Your task to perform on an android device: uninstall "Pluto TV - Live TV and Movies" Image 0: 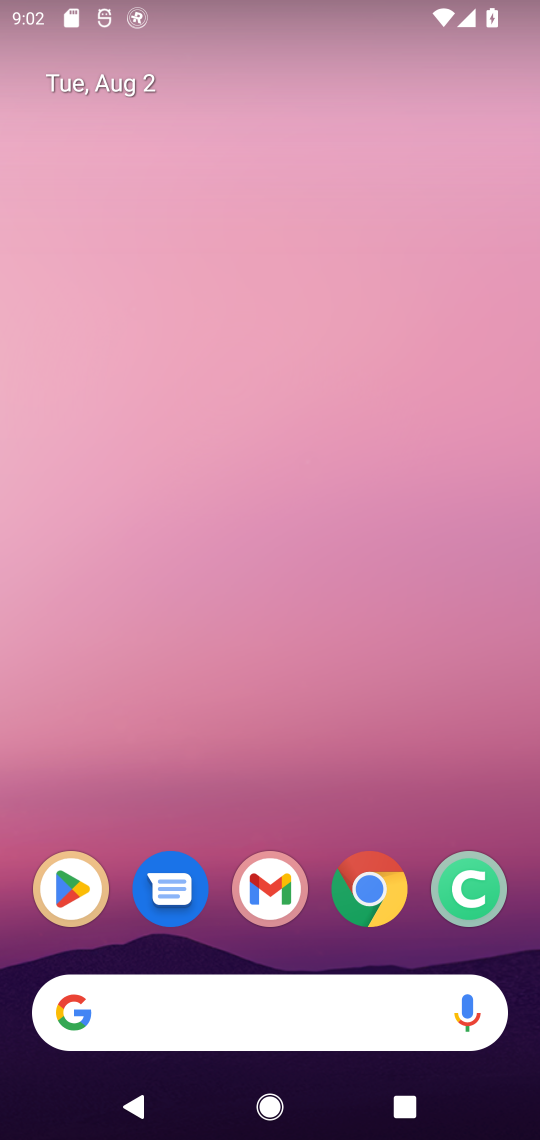
Step 0: press home button
Your task to perform on an android device: uninstall "Pluto TV - Live TV and Movies" Image 1: 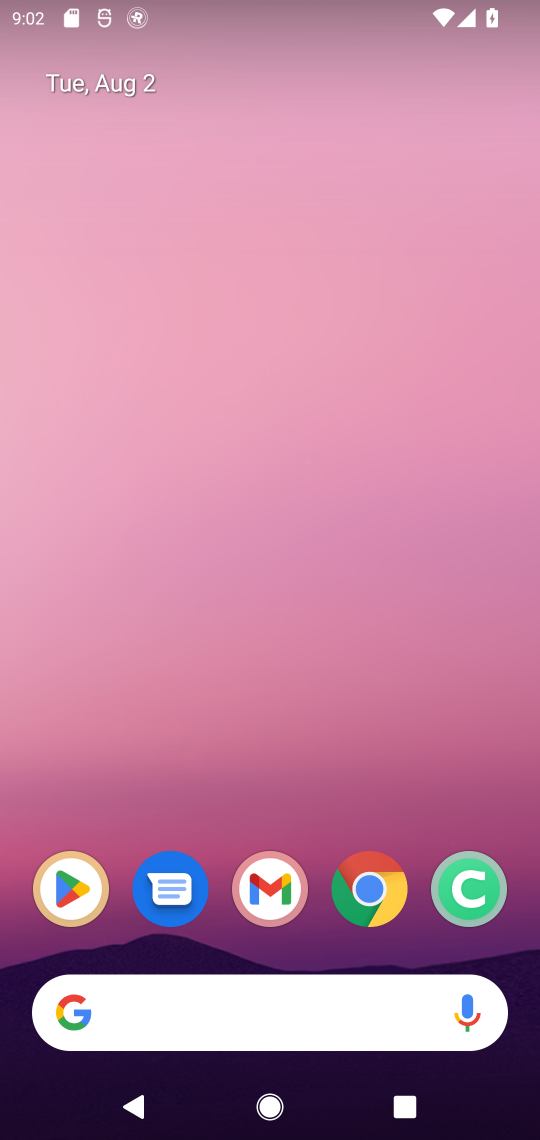
Step 1: click (76, 890)
Your task to perform on an android device: uninstall "Pluto TV - Live TV and Movies" Image 2: 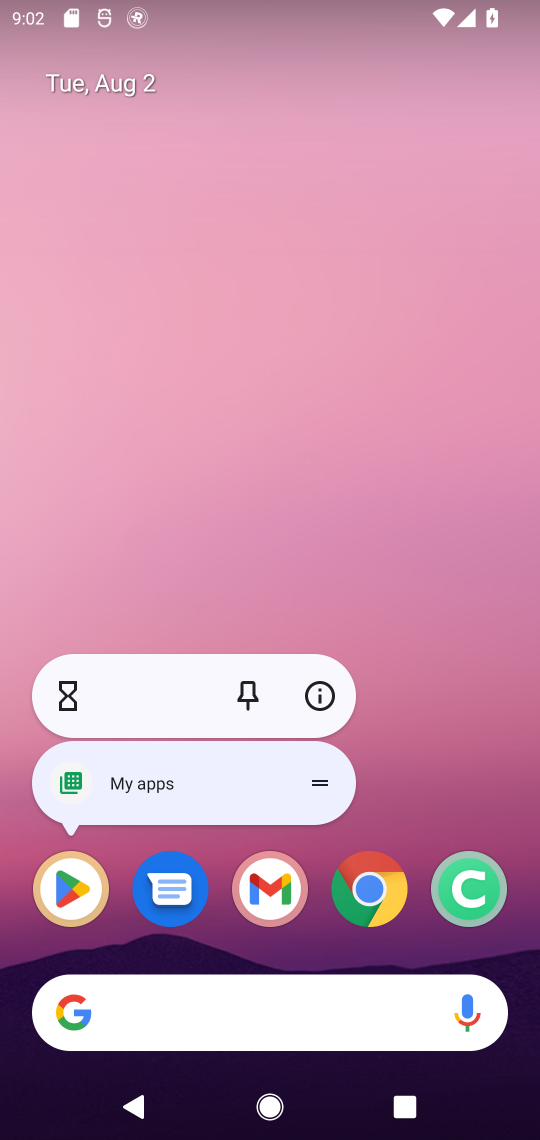
Step 2: click (72, 880)
Your task to perform on an android device: uninstall "Pluto TV - Live TV and Movies" Image 3: 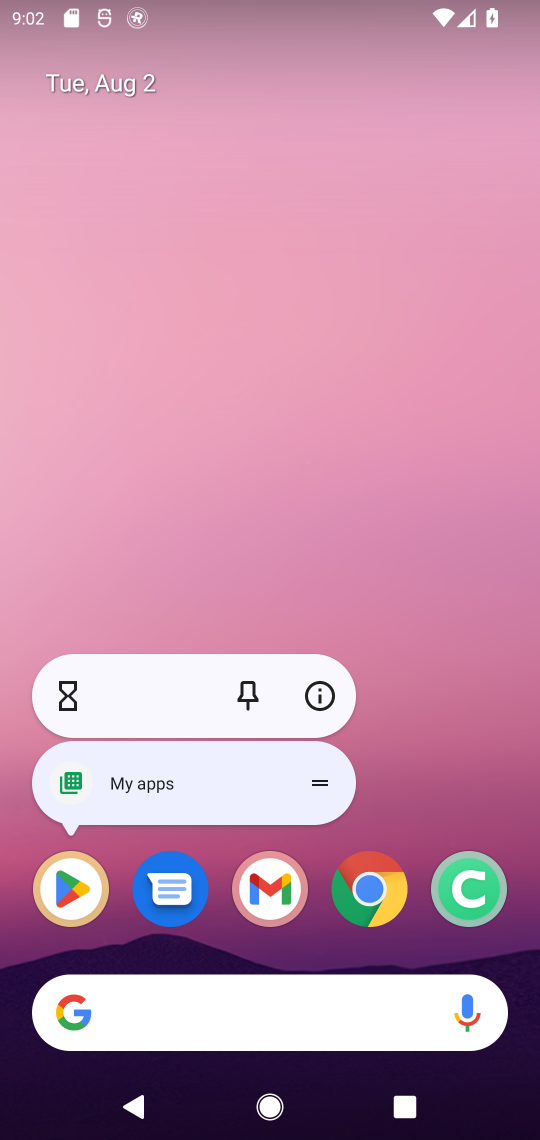
Step 3: click (72, 884)
Your task to perform on an android device: uninstall "Pluto TV - Live TV and Movies" Image 4: 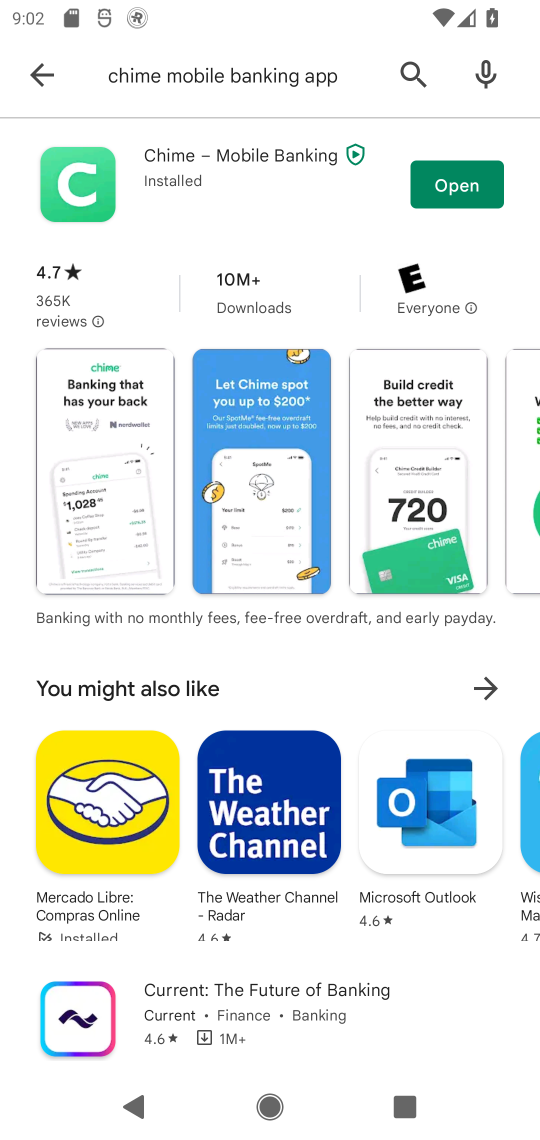
Step 4: click (402, 62)
Your task to perform on an android device: uninstall "Pluto TV - Live TV and Movies" Image 5: 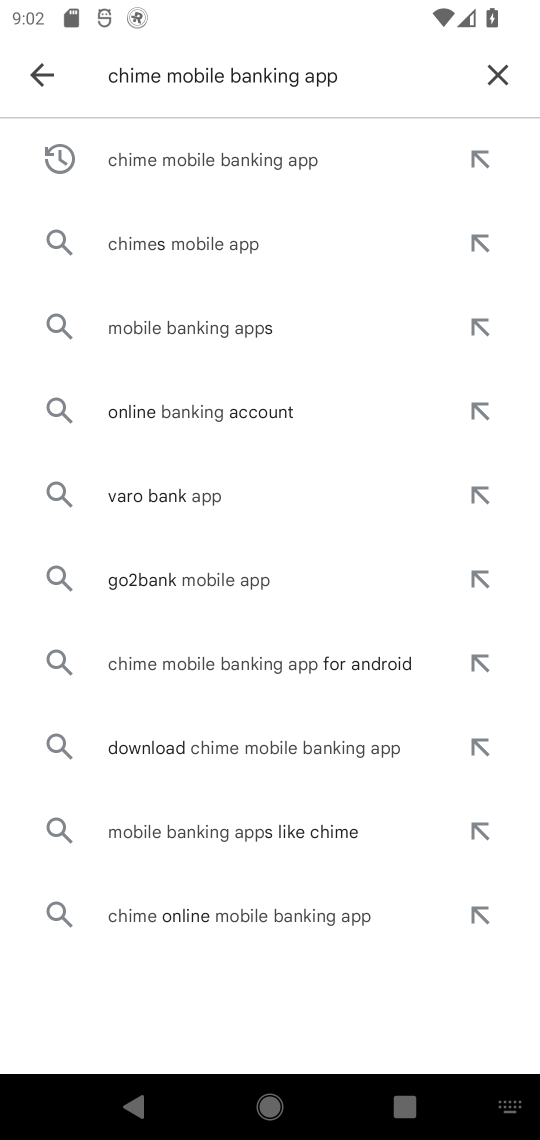
Step 5: click (499, 68)
Your task to perform on an android device: uninstall "Pluto TV - Live TV and Movies" Image 6: 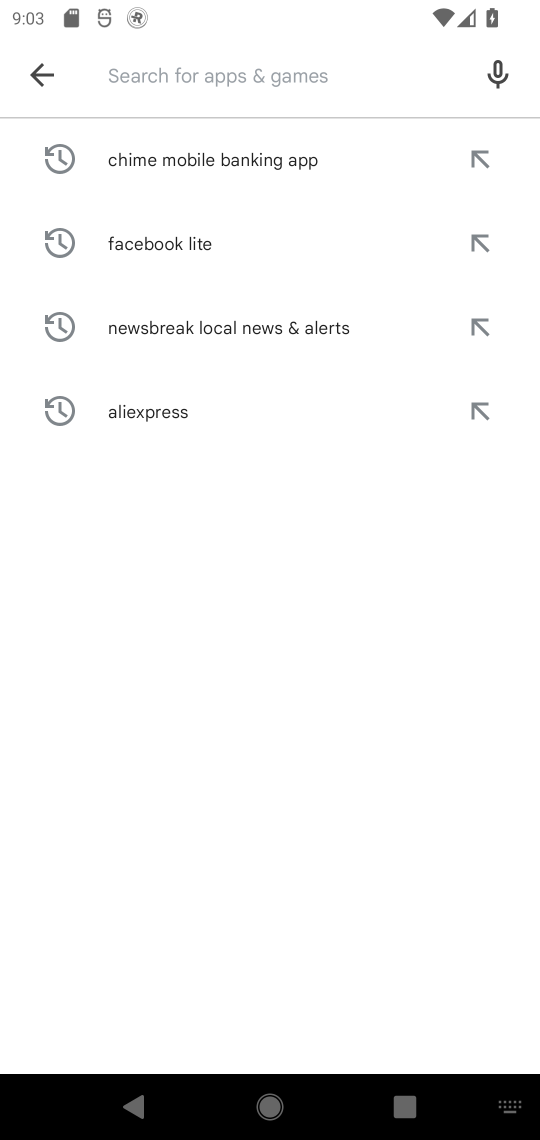
Step 6: type "Pluto TV - Live TV and Movies"
Your task to perform on an android device: uninstall "Pluto TV - Live TV and Movies" Image 7: 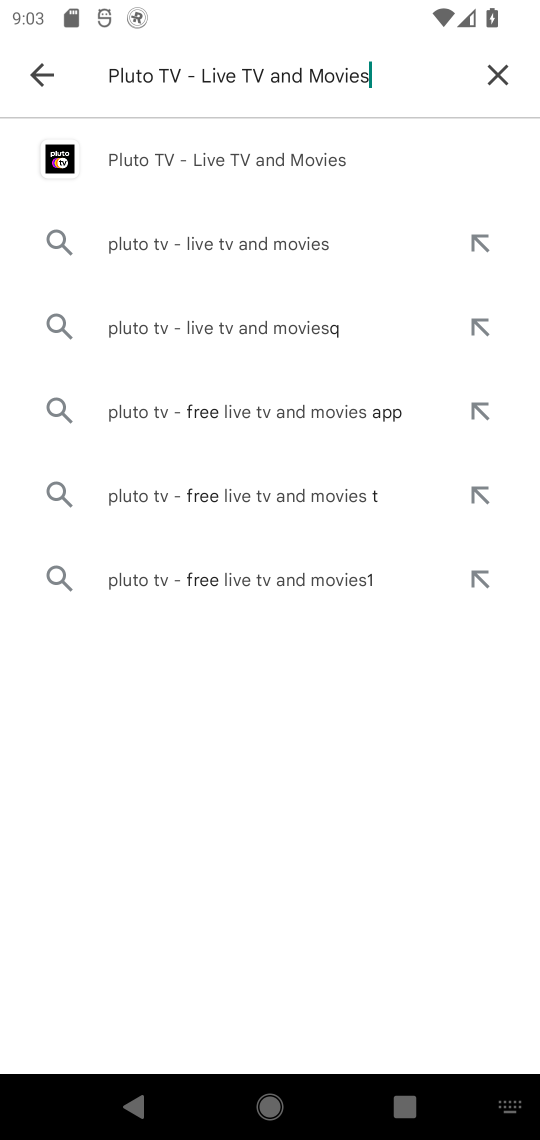
Step 7: click (247, 152)
Your task to perform on an android device: uninstall "Pluto TV - Live TV and Movies" Image 8: 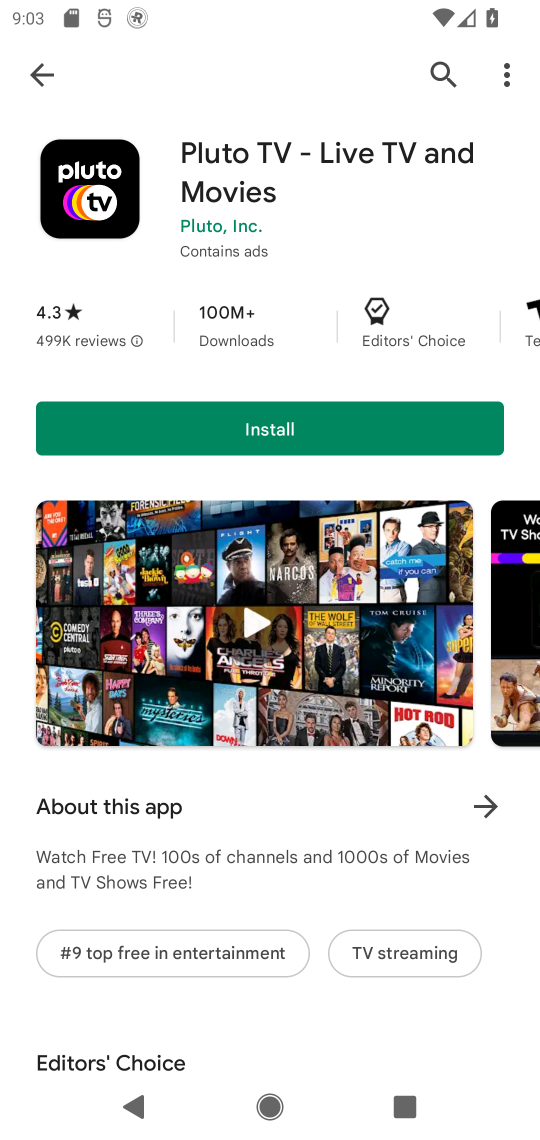
Step 8: task complete